Your task to perform on an android device: Set an alarm for 11am Image 0: 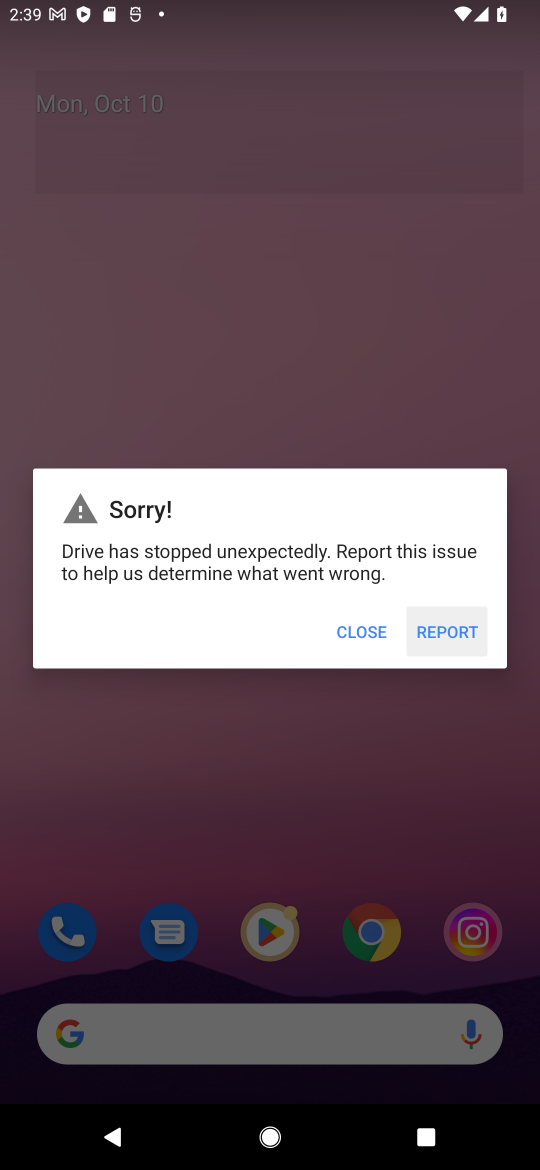
Step 0: press home button
Your task to perform on an android device: Set an alarm for 11am Image 1: 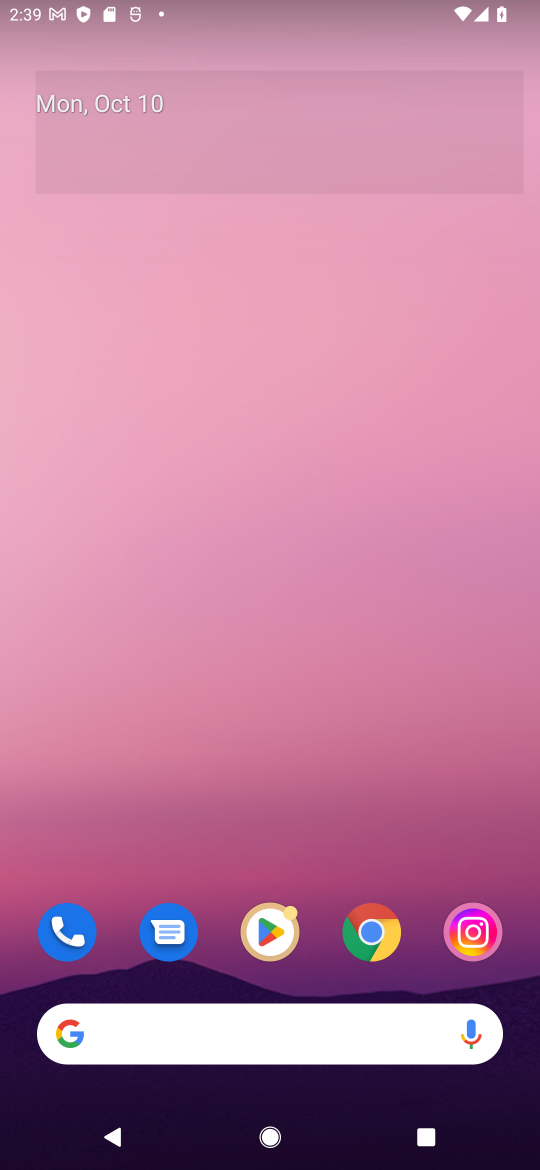
Step 1: drag from (451, 738) to (460, 78)
Your task to perform on an android device: Set an alarm for 11am Image 2: 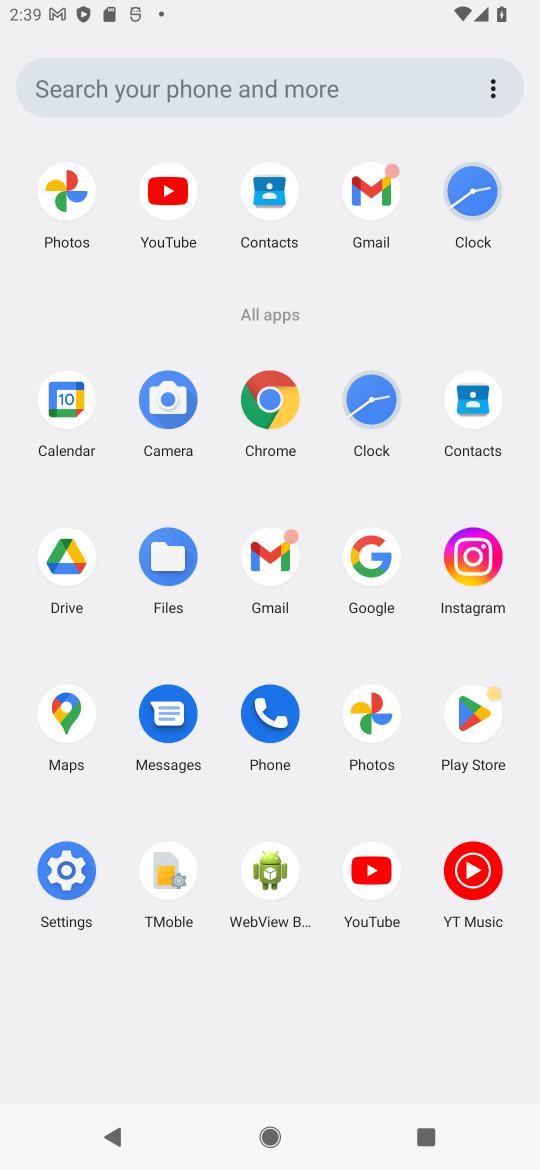
Step 2: click (472, 198)
Your task to perform on an android device: Set an alarm for 11am Image 3: 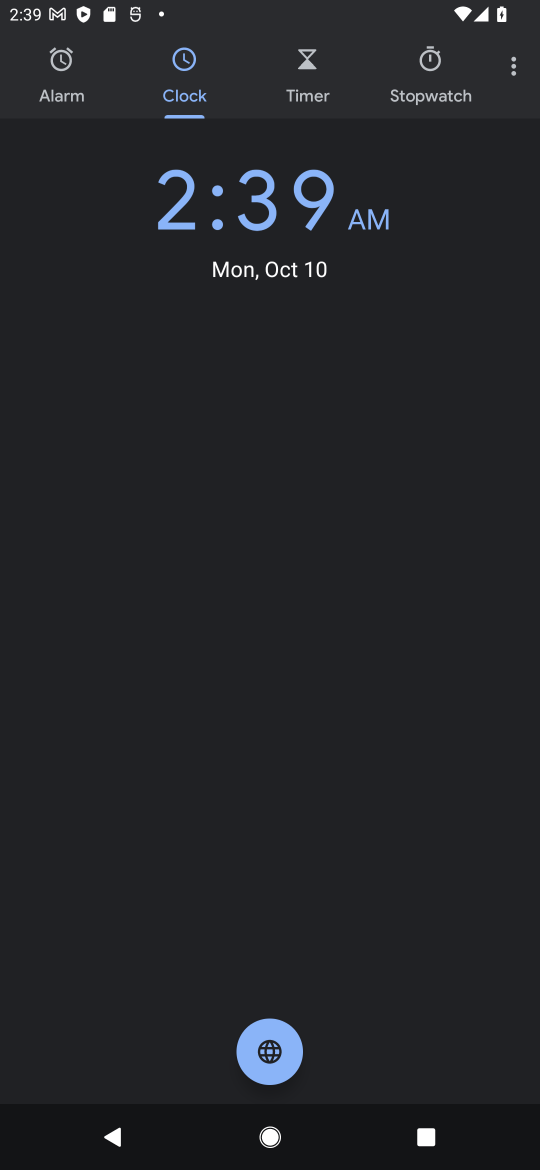
Step 3: click (66, 79)
Your task to perform on an android device: Set an alarm for 11am Image 4: 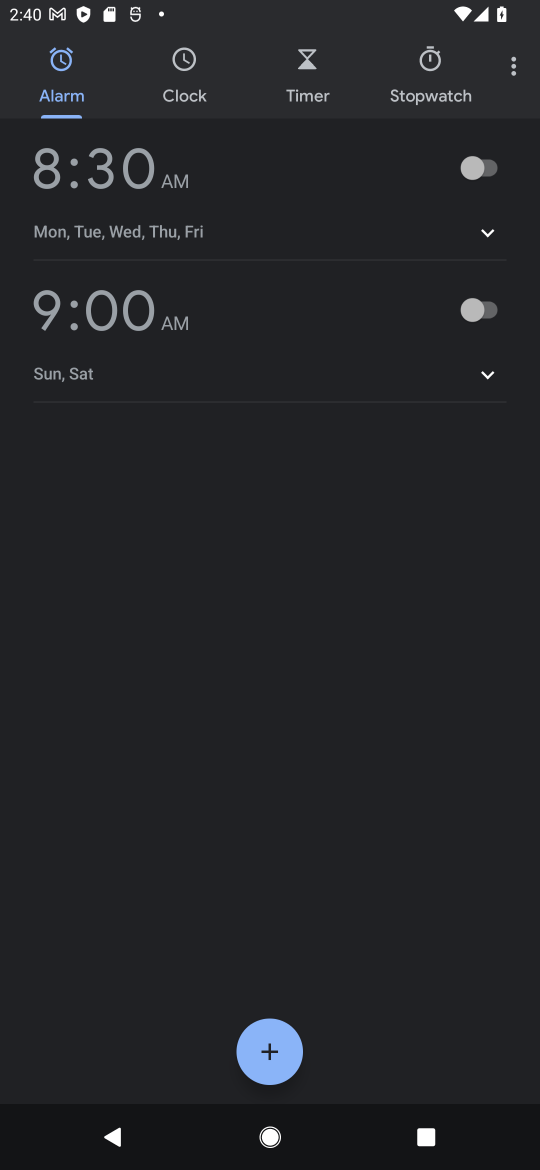
Step 4: click (267, 1056)
Your task to perform on an android device: Set an alarm for 11am Image 5: 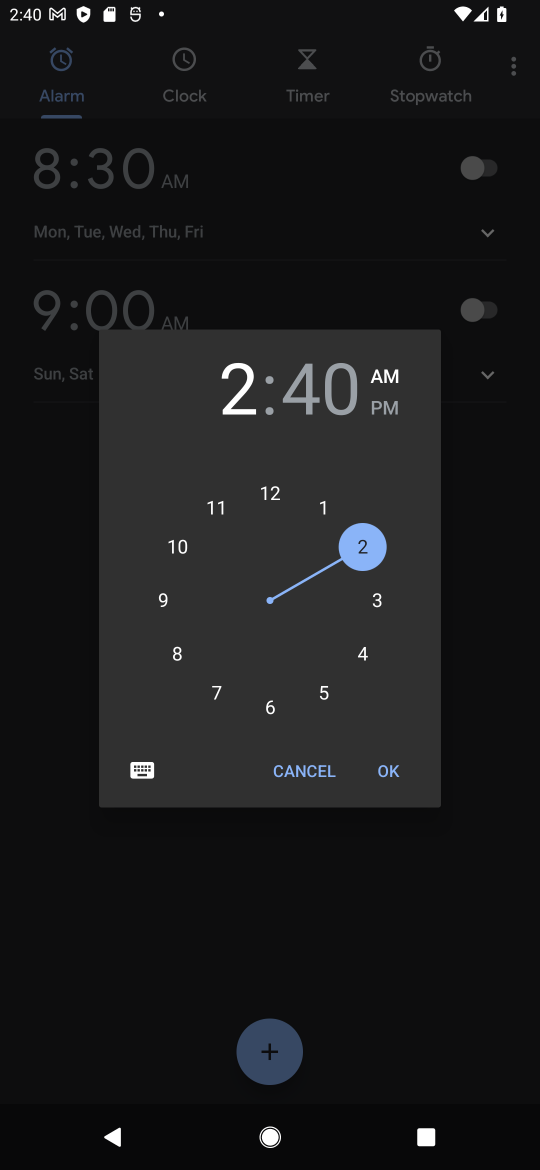
Step 5: click (217, 504)
Your task to perform on an android device: Set an alarm for 11am Image 6: 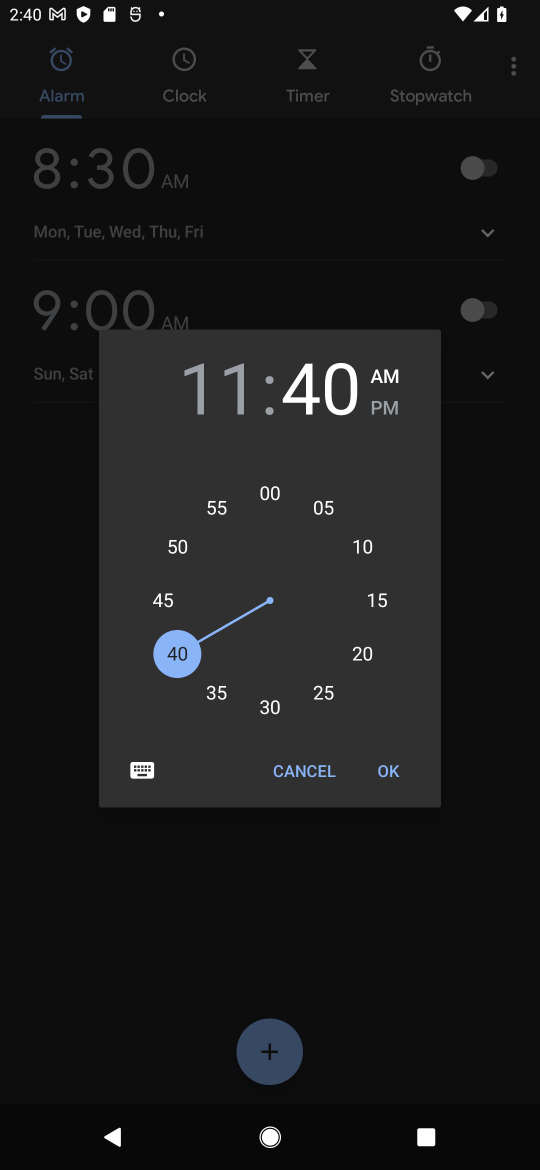
Step 6: click (266, 496)
Your task to perform on an android device: Set an alarm for 11am Image 7: 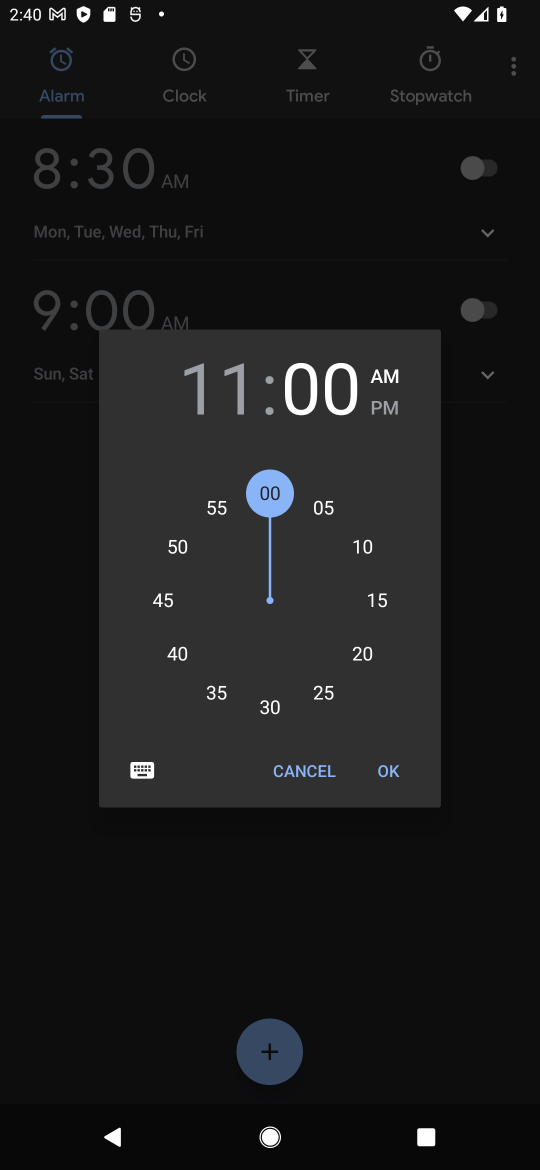
Step 7: click (386, 777)
Your task to perform on an android device: Set an alarm for 11am Image 8: 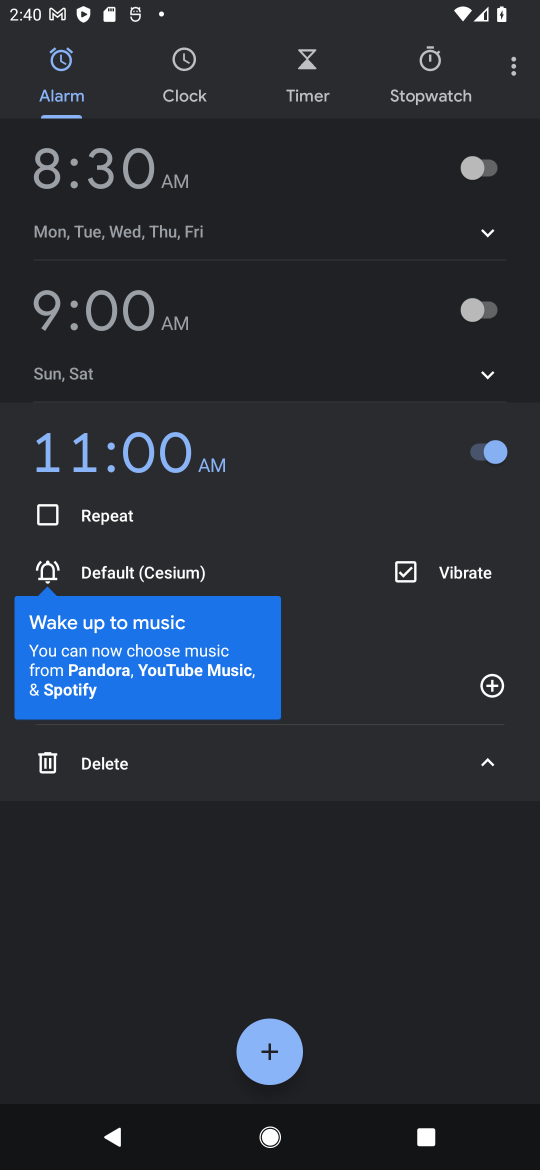
Step 8: task complete